Your task to perform on an android device: Open the web browser Image 0: 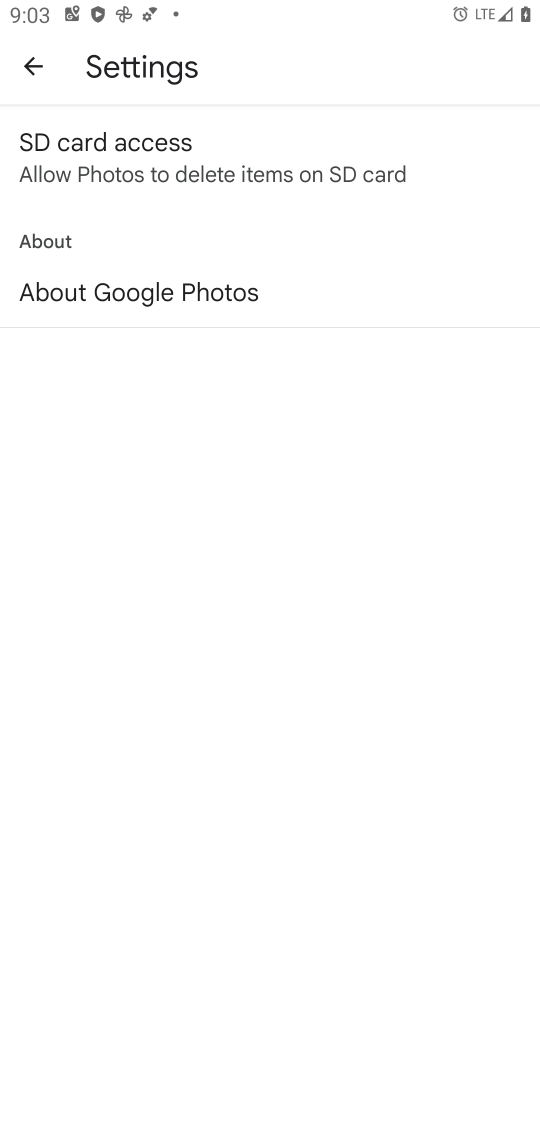
Step 0: press home button
Your task to perform on an android device: Open the web browser Image 1: 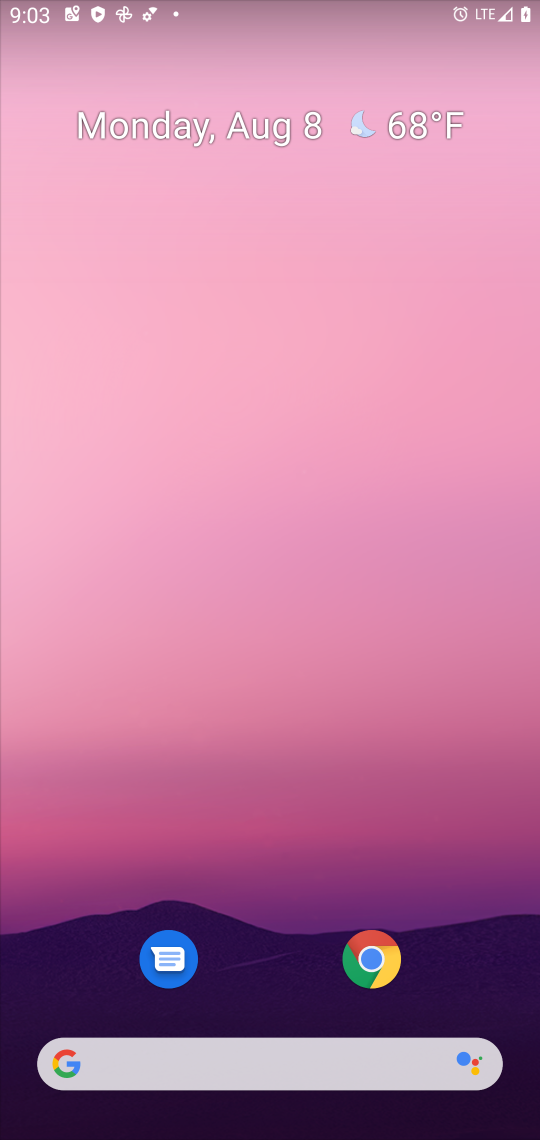
Step 1: drag from (467, 953) to (335, 92)
Your task to perform on an android device: Open the web browser Image 2: 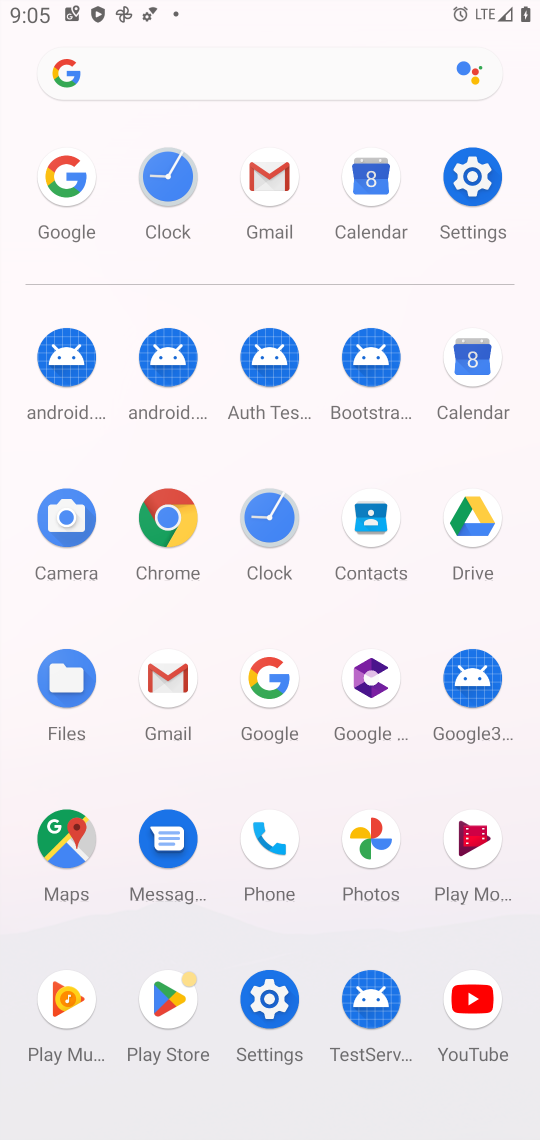
Step 2: click (276, 695)
Your task to perform on an android device: Open the web browser Image 3: 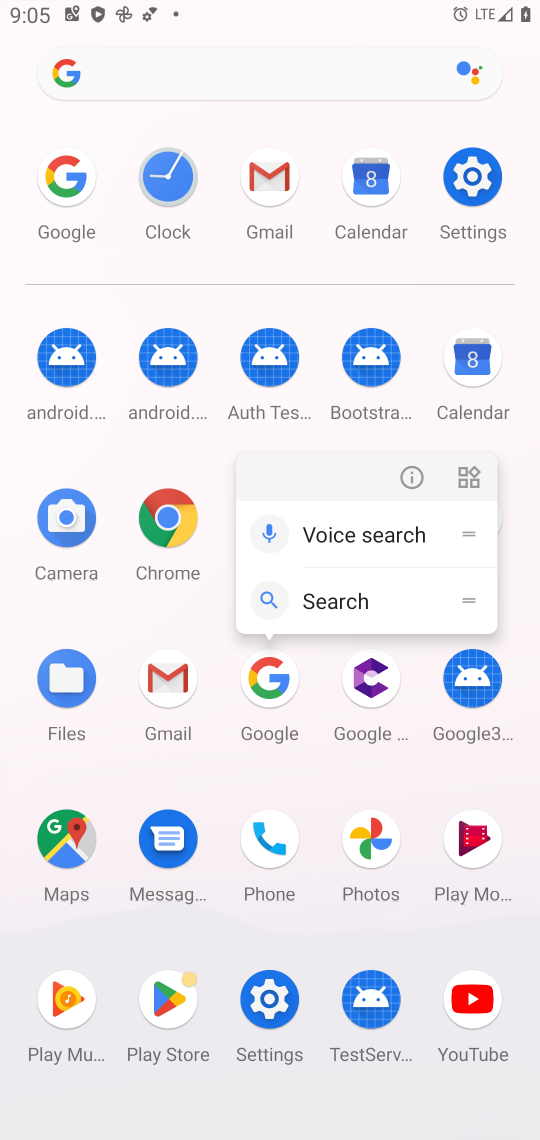
Step 3: click (276, 696)
Your task to perform on an android device: Open the web browser Image 4: 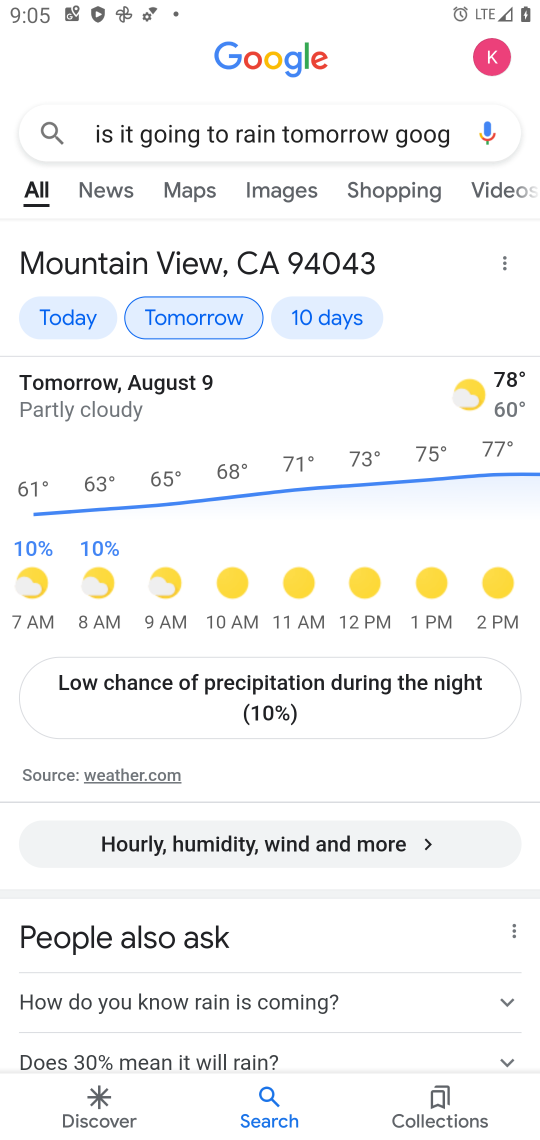
Step 4: press back button
Your task to perform on an android device: Open the web browser Image 5: 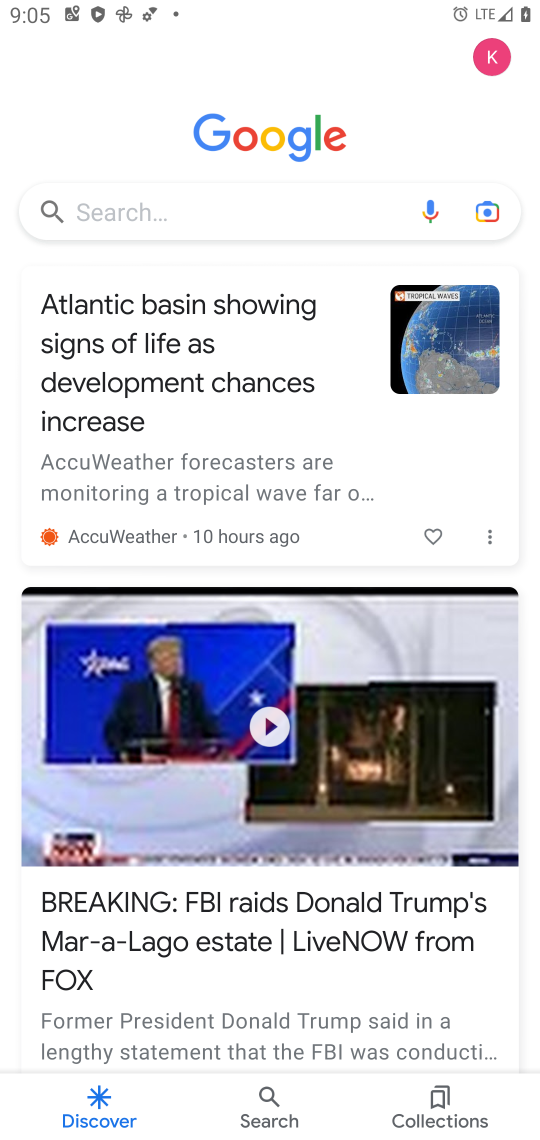
Step 5: click (200, 213)
Your task to perform on an android device: Open the web browser Image 6: 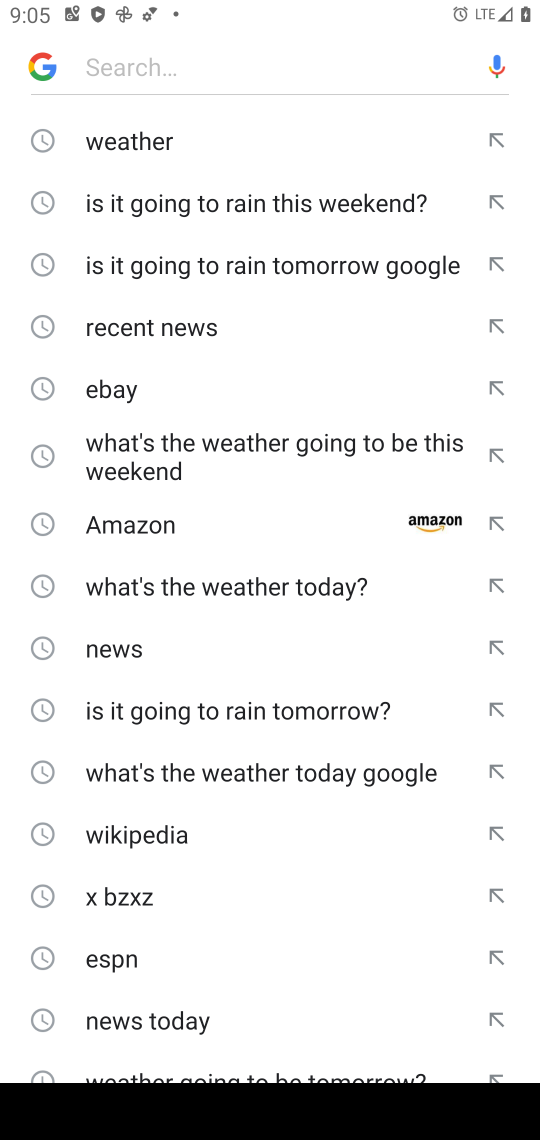
Step 6: type "web browser"
Your task to perform on an android device: Open the web browser Image 7: 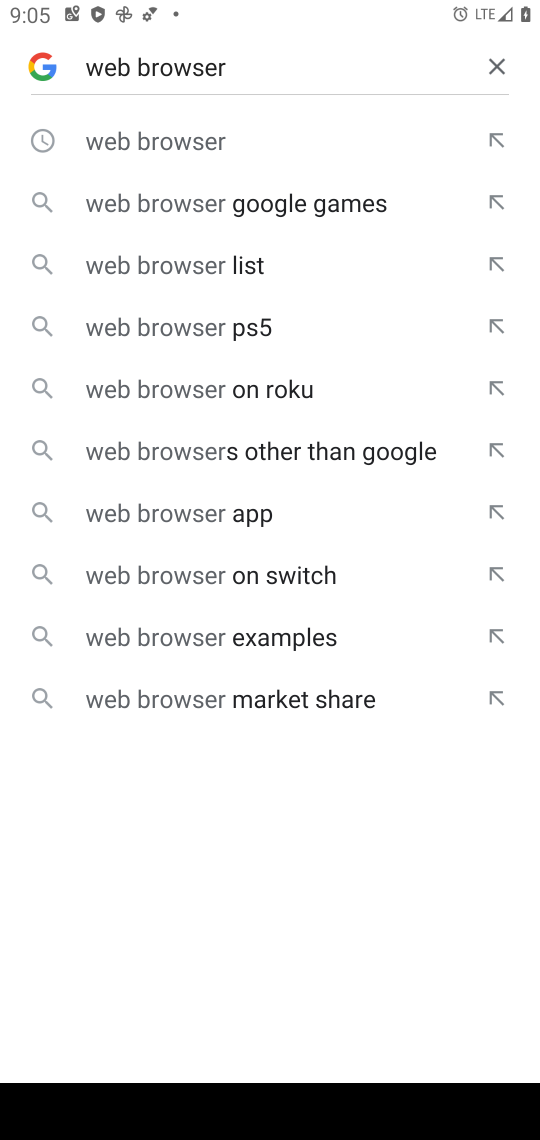
Step 7: click (195, 146)
Your task to perform on an android device: Open the web browser Image 8: 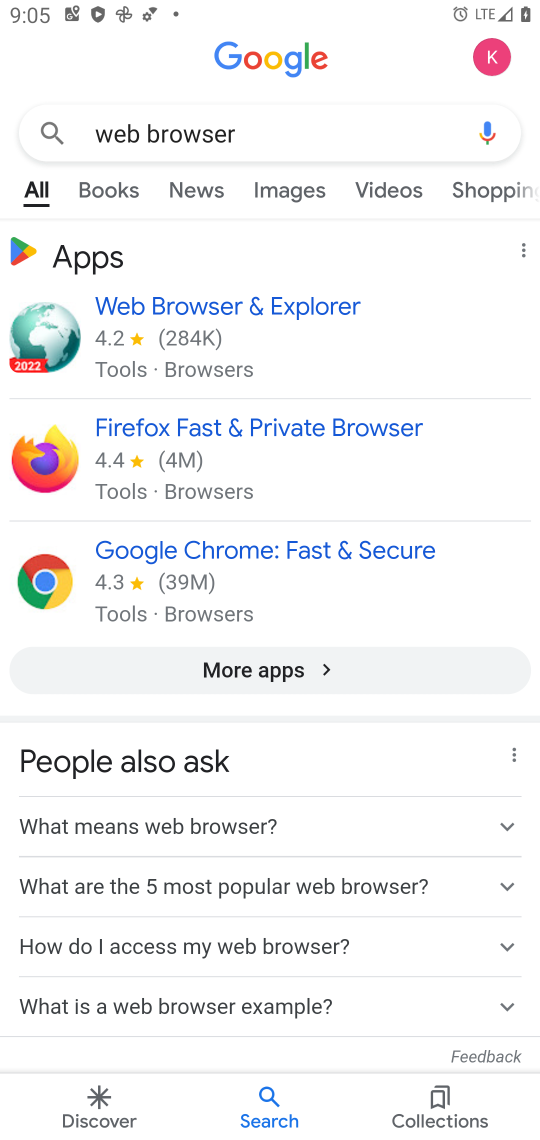
Step 8: task complete